Your task to perform on an android device: Open Chrome and go to the settings page Image 0: 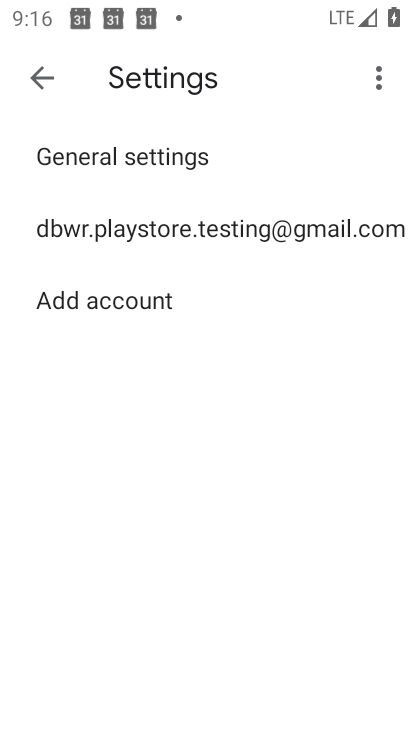
Step 0: press back button
Your task to perform on an android device: Open Chrome and go to the settings page Image 1: 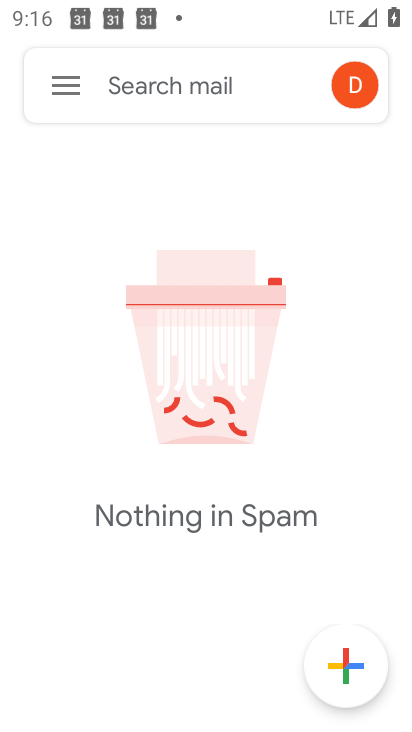
Step 1: press back button
Your task to perform on an android device: Open Chrome and go to the settings page Image 2: 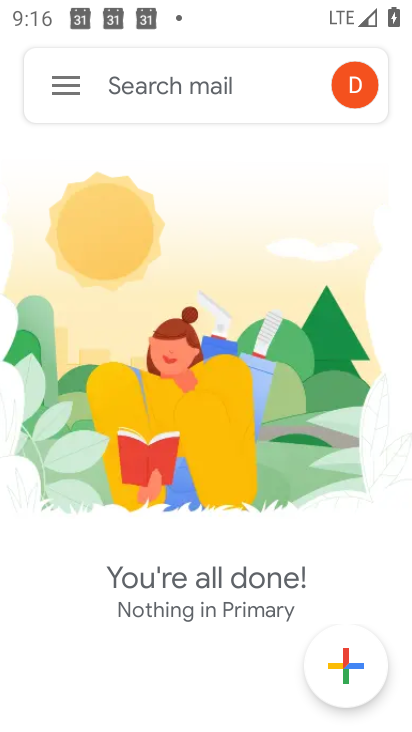
Step 2: press back button
Your task to perform on an android device: Open Chrome and go to the settings page Image 3: 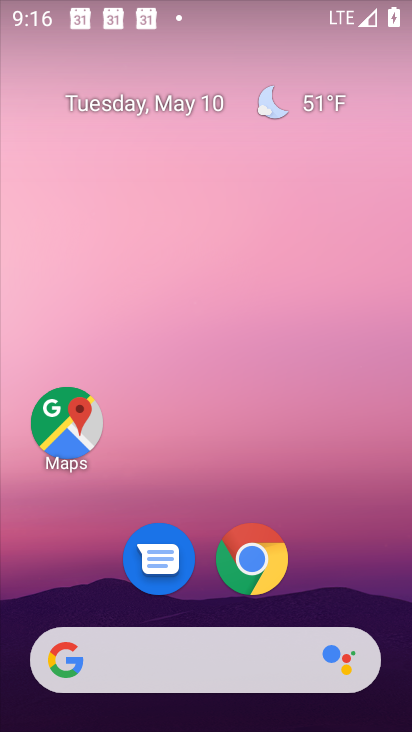
Step 3: click (254, 558)
Your task to perform on an android device: Open Chrome and go to the settings page Image 4: 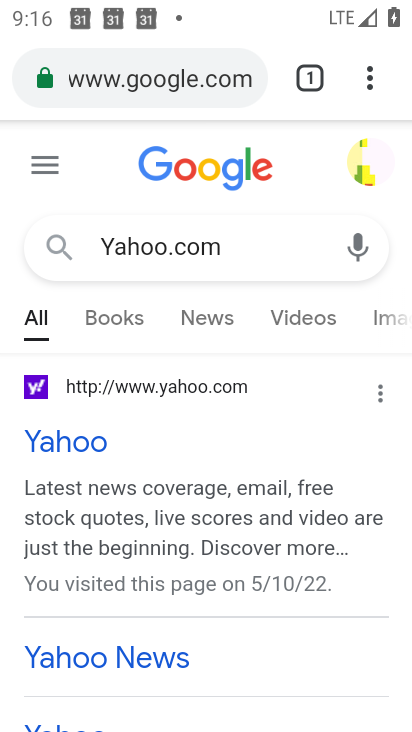
Step 4: click (371, 81)
Your task to perform on an android device: Open Chrome and go to the settings page Image 5: 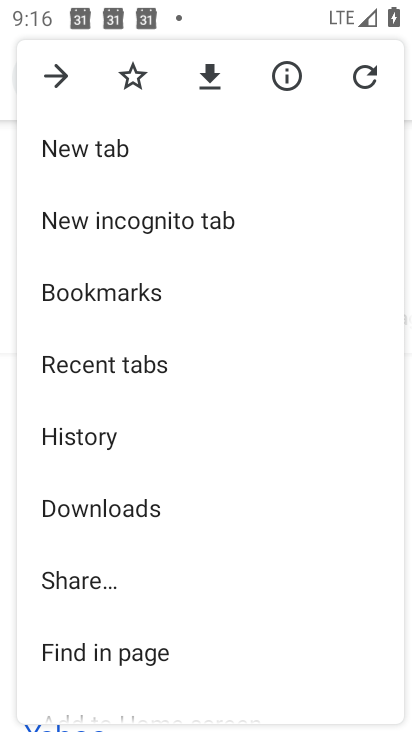
Step 5: drag from (126, 563) to (145, 449)
Your task to perform on an android device: Open Chrome and go to the settings page Image 6: 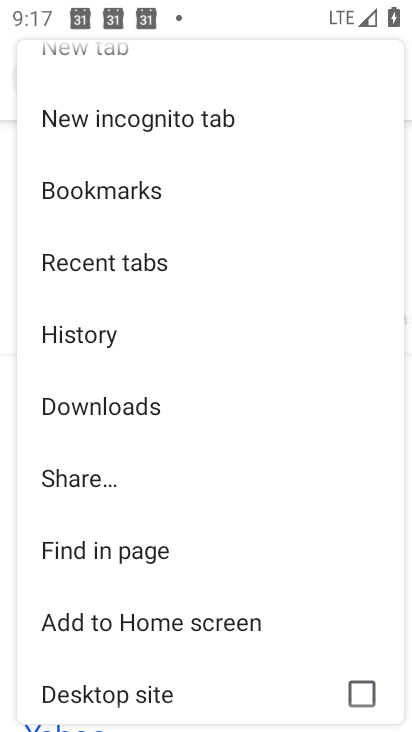
Step 6: drag from (165, 580) to (224, 475)
Your task to perform on an android device: Open Chrome and go to the settings page Image 7: 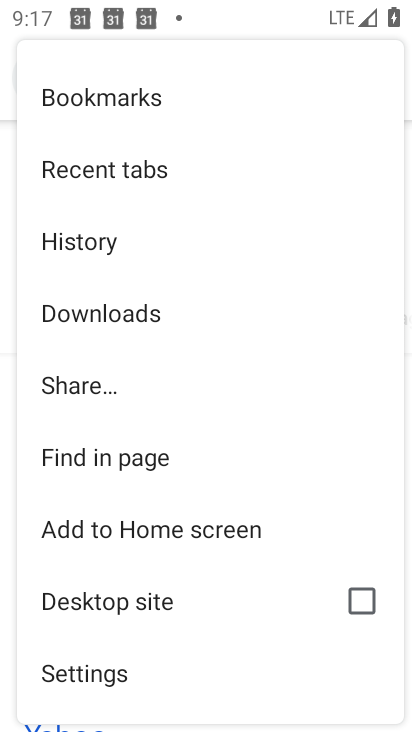
Step 7: click (111, 675)
Your task to perform on an android device: Open Chrome and go to the settings page Image 8: 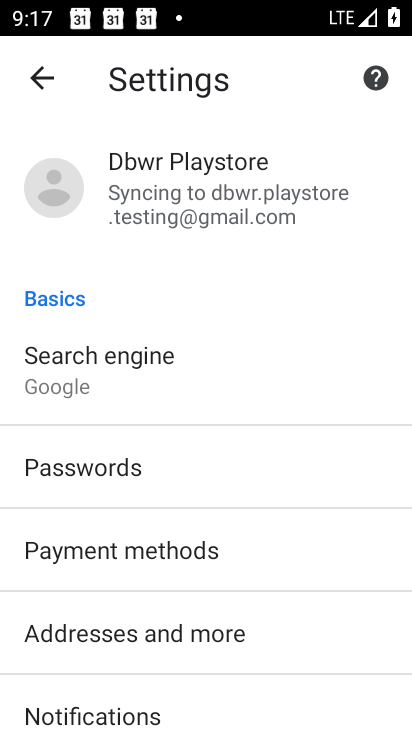
Step 8: task complete